Your task to perform on an android device: star an email in the gmail app Image 0: 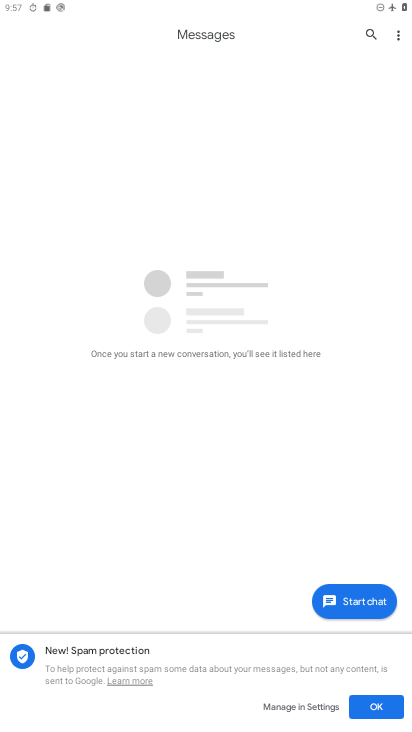
Step 0: drag from (251, 559) to (148, 28)
Your task to perform on an android device: star an email in the gmail app Image 1: 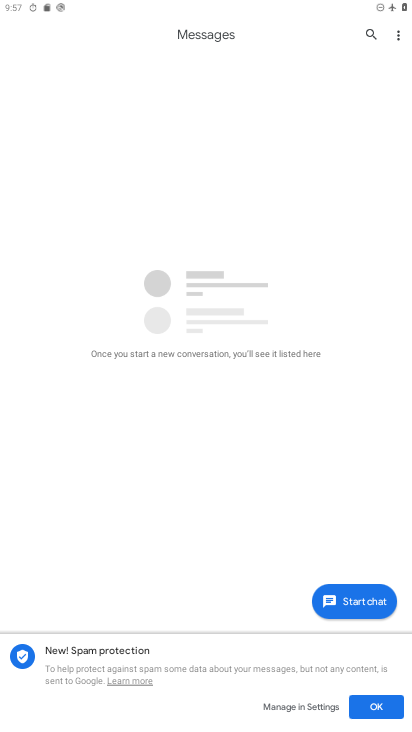
Step 1: press home button
Your task to perform on an android device: star an email in the gmail app Image 2: 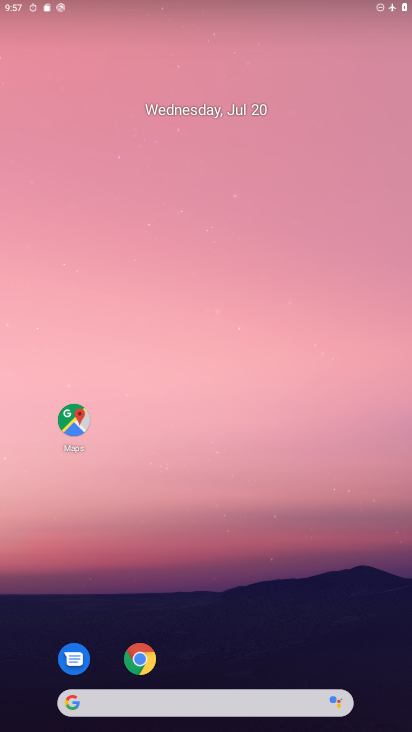
Step 2: drag from (254, 679) to (200, 155)
Your task to perform on an android device: star an email in the gmail app Image 3: 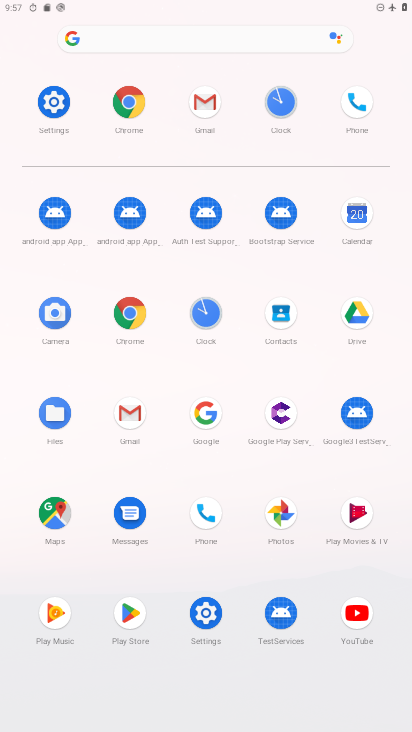
Step 3: click (208, 99)
Your task to perform on an android device: star an email in the gmail app Image 4: 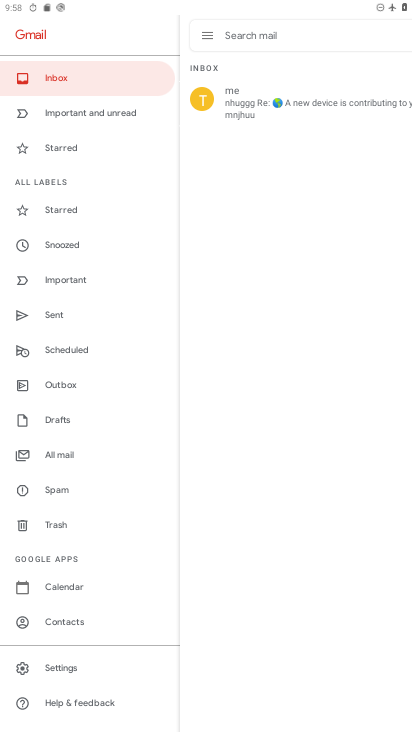
Step 4: click (311, 123)
Your task to perform on an android device: star an email in the gmail app Image 5: 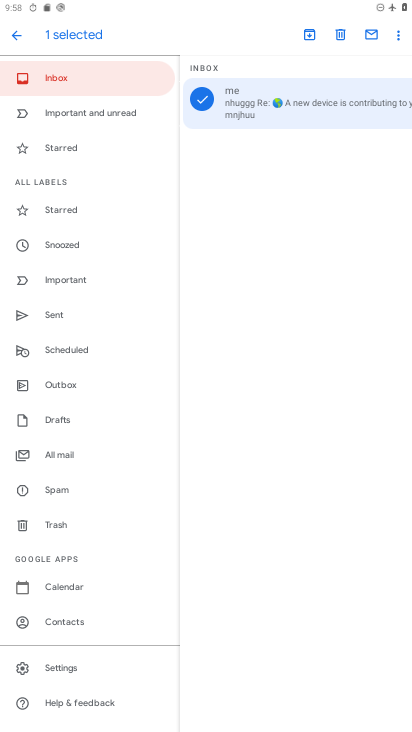
Step 5: click (311, 122)
Your task to perform on an android device: star an email in the gmail app Image 6: 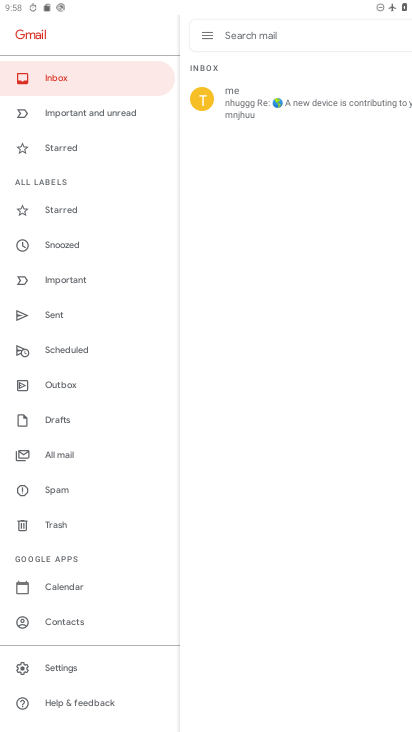
Step 6: click (309, 212)
Your task to perform on an android device: star an email in the gmail app Image 7: 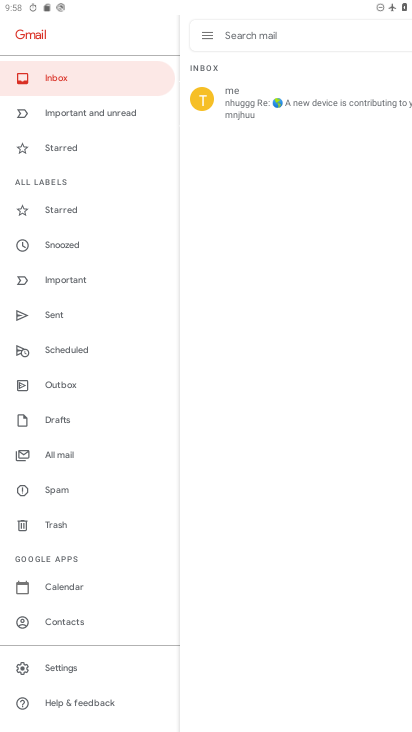
Step 7: click (54, 456)
Your task to perform on an android device: star an email in the gmail app Image 8: 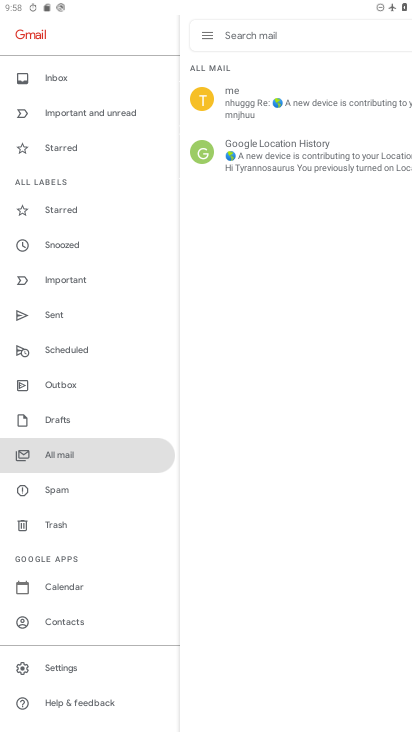
Step 8: click (288, 101)
Your task to perform on an android device: star an email in the gmail app Image 9: 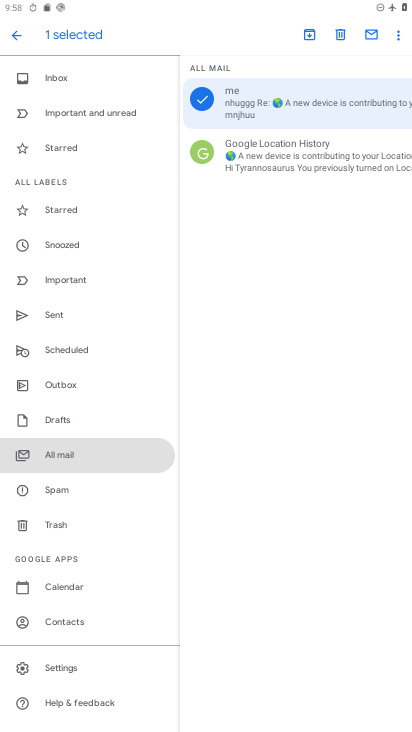
Step 9: click (393, 34)
Your task to perform on an android device: star an email in the gmail app Image 10: 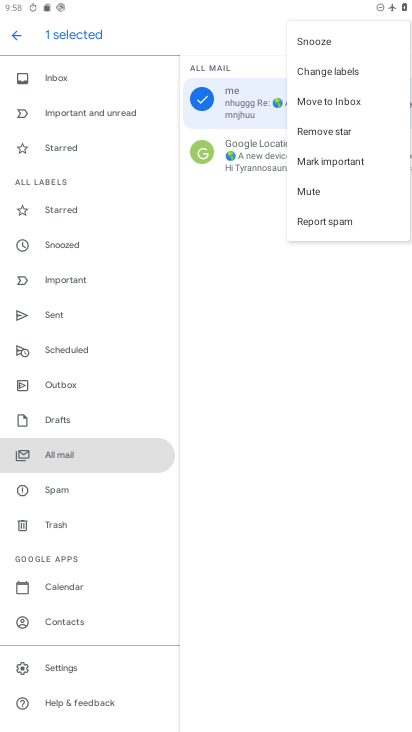
Step 10: click (287, 359)
Your task to perform on an android device: star an email in the gmail app Image 11: 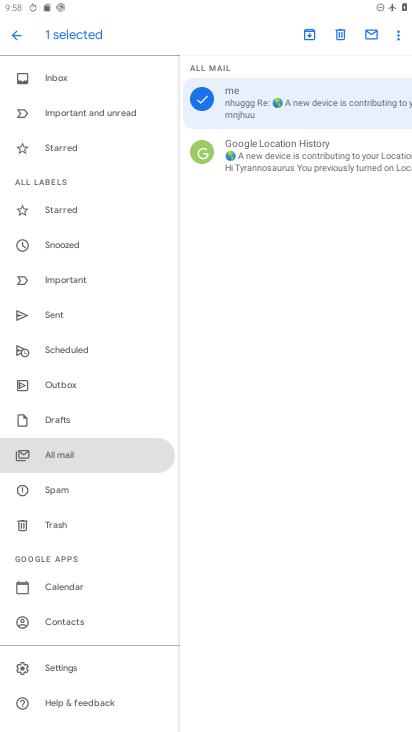
Step 11: click (239, 166)
Your task to perform on an android device: star an email in the gmail app Image 12: 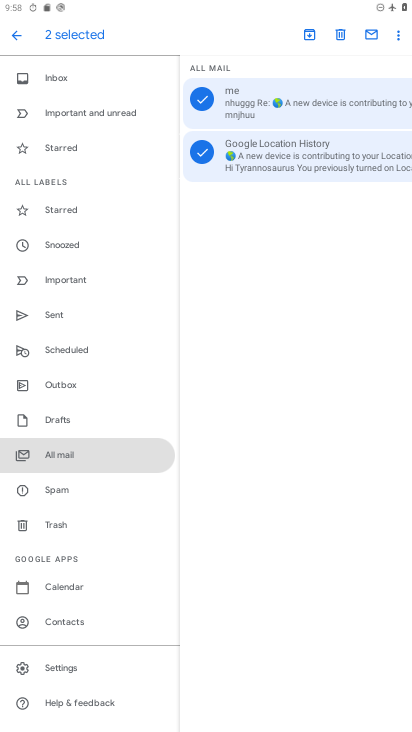
Step 12: click (262, 97)
Your task to perform on an android device: star an email in the gmail app Image 13: 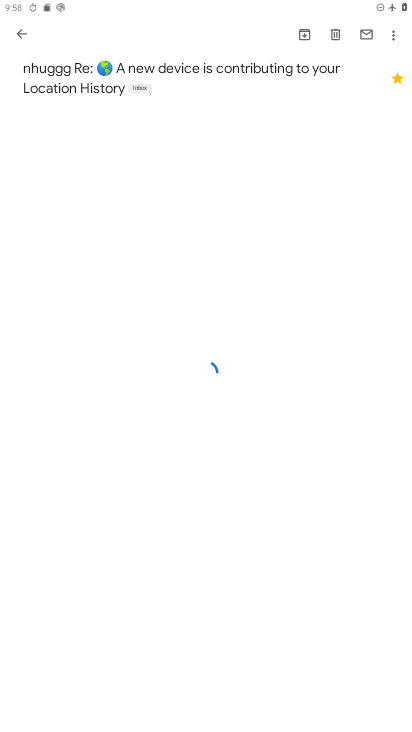
Step 13: click (399, 32)
Your task to perform on an android device: star an email in the gmail app Image 14: 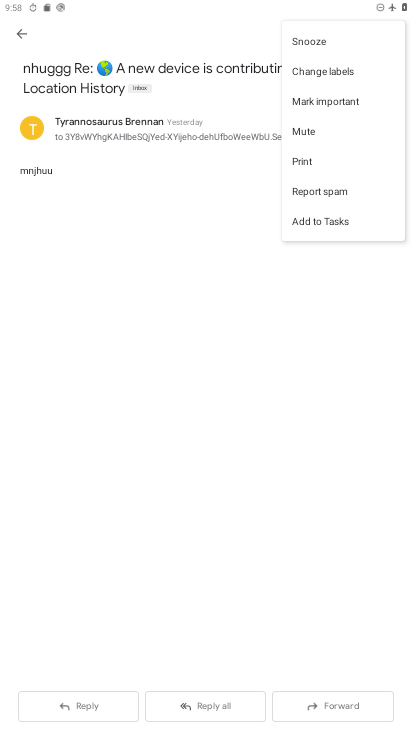
Step 14: click (13, 31)
Your task to perform on an android device: star an email in the gmail app Image 15: 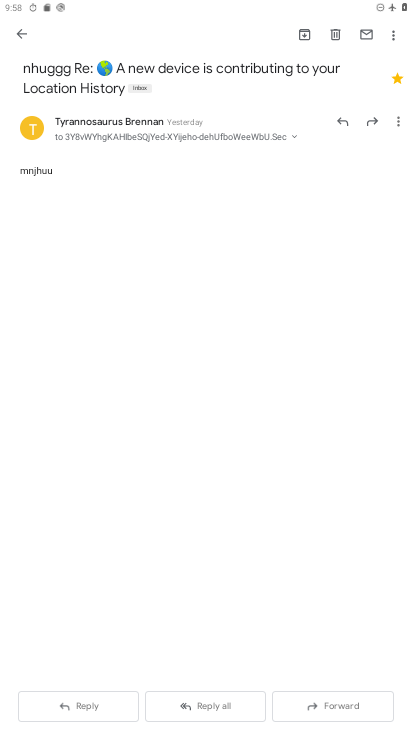
Step 15: click (25, 34)
Your task to perform on an android device: star an email in the gmail app Image 16: 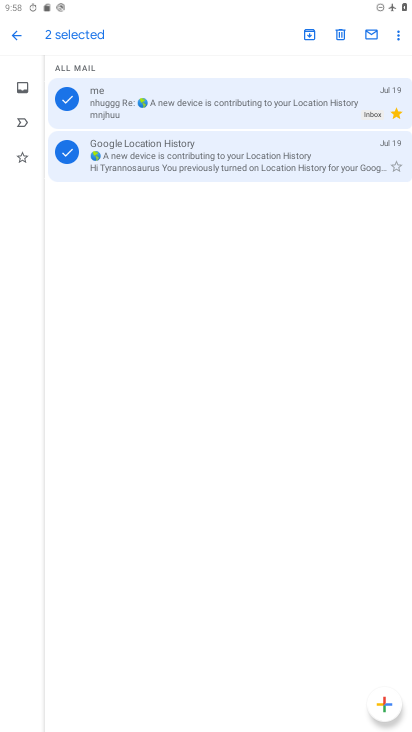
Step 16: click (399, 166)
Your task to perform on an android device: star an email in the gmail app Image 17: 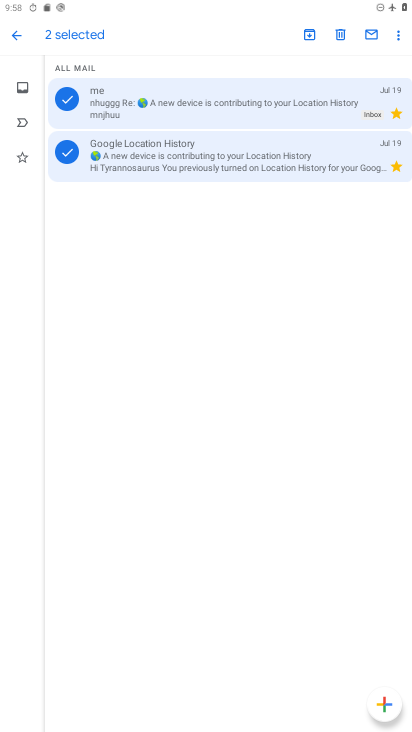
Step 17: task complete